Your task to perform on an android device: turn off smart reply in the gmail app Image 0: 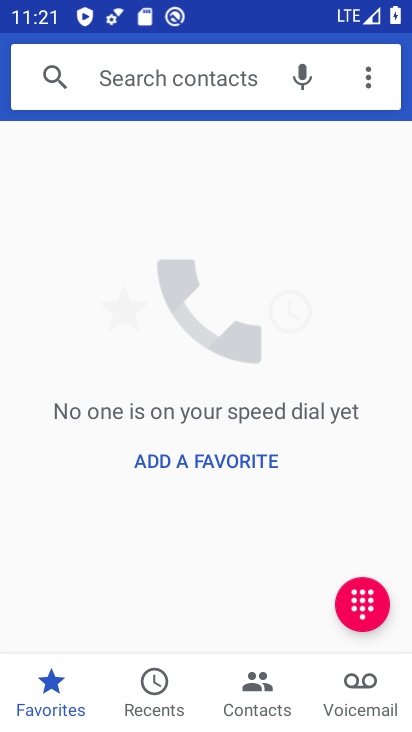
Step 0: press home button
Your task to perform on an android device: turn off smart reply in the gmail app Image 1: 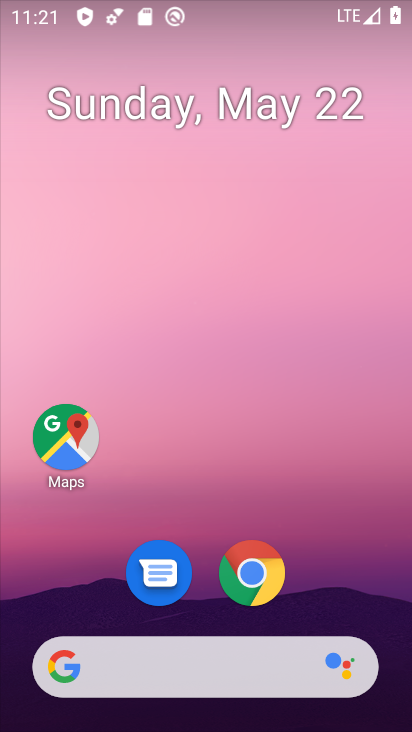
Step 1: drag from (195, 614) to (172, 6)
Your task to perform on an android device: turn off smart reply in the gmail app Image 2: 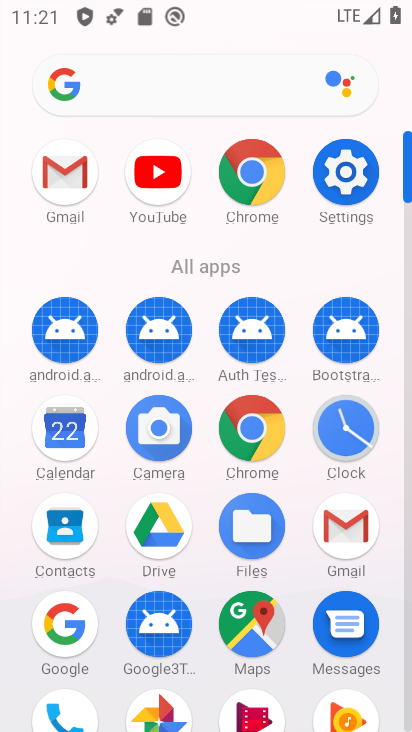
Step 2: click (70, 189)
Your task to perform on an android device: turn off smart reply in the gmail app Image 3: 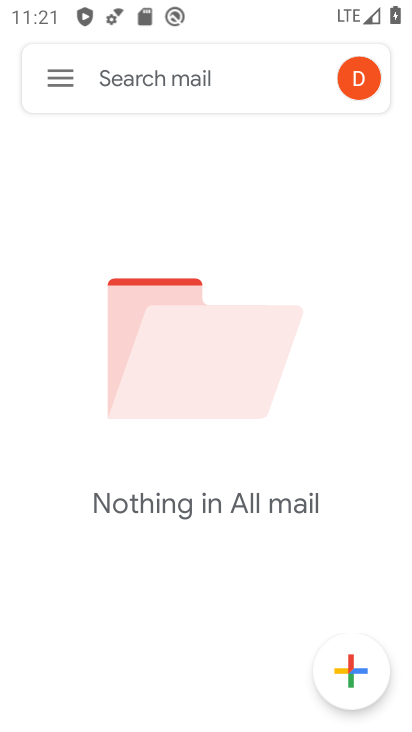
Step 3: click (55, 69)
Your task to perform on an android device: turn off smart reply in the gmail app Image 4: 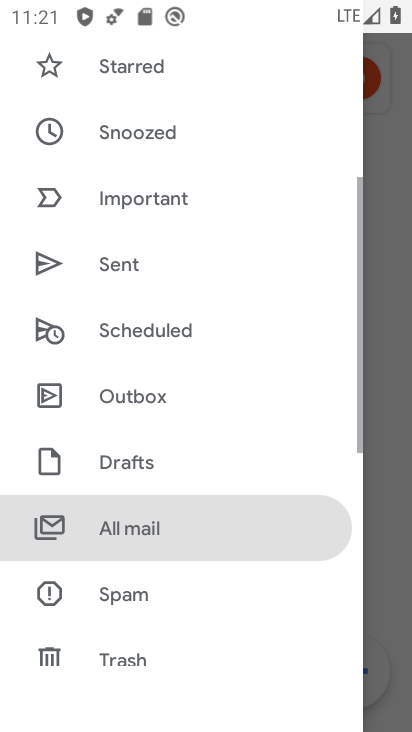
Step 4: drag from (99, 596) to (164, 54)
Your task to perform on an android device: turn off smart reply in the gmail app Image 5: 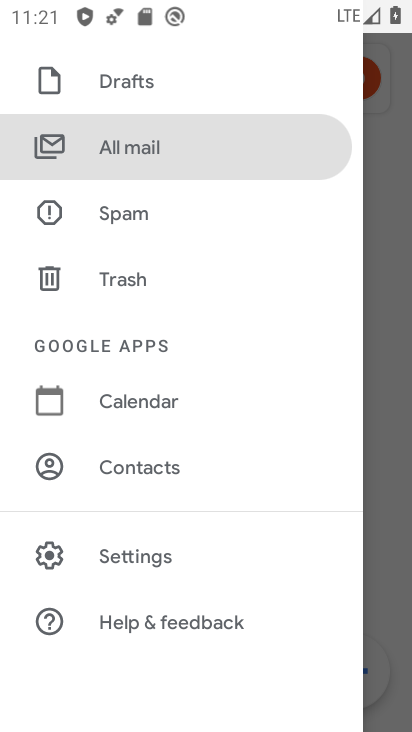
Step 5: click (141, 567)
Your task to perform on an android device: turn off smart reply in the gmail app Image 6: 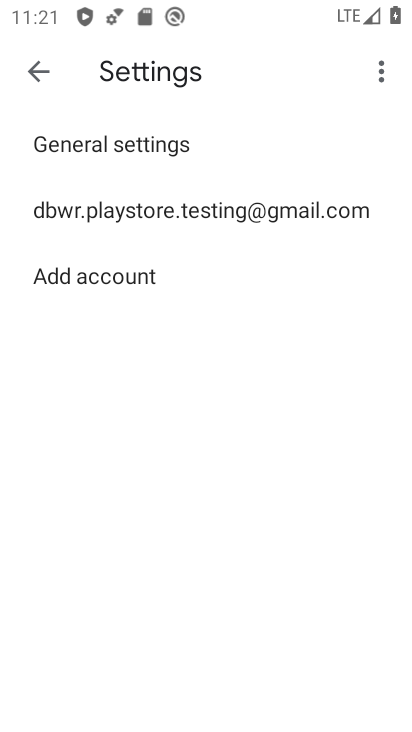
Step 6: click (137, 210)
Your task to perform on an android device: turn off smart reply in the gmail app Image 7: 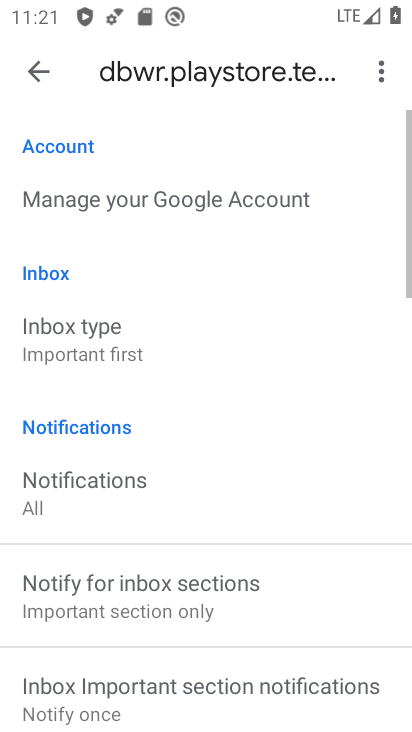
Step 7: drag from (200, 632) to (229, 106)
Your task to perform on an android device: turn off smart reply in the gmail app Image 8: 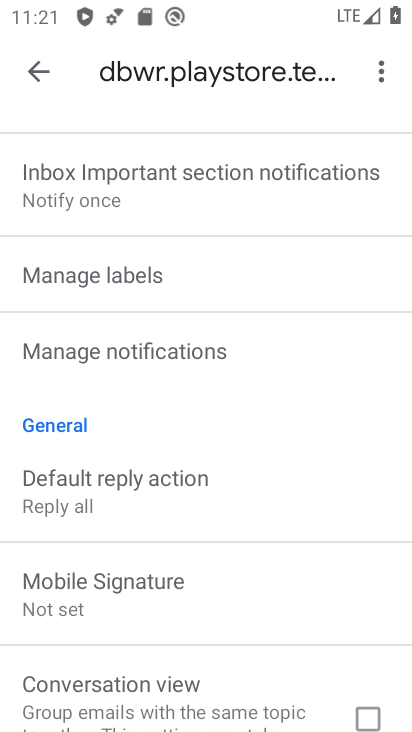
Step 8: drag from (165, 546) to (172, 166)
Your task to perform on an android device: turn off smart reply in the gmail app Image 9: 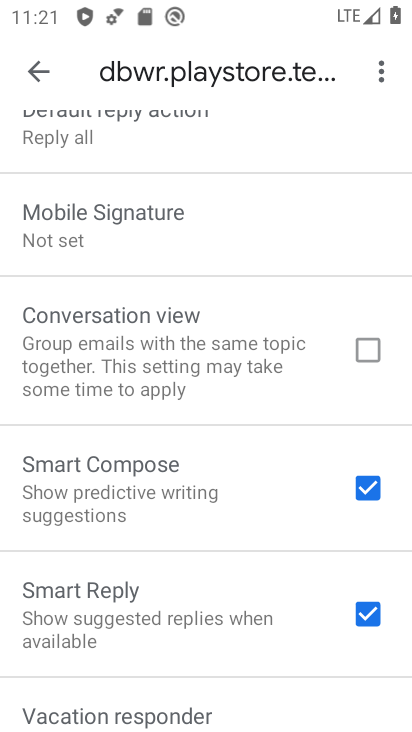
Step 9: click (372, 615)
Your task to perform on an android device: turn off smart reply in the gmail app Image 10: 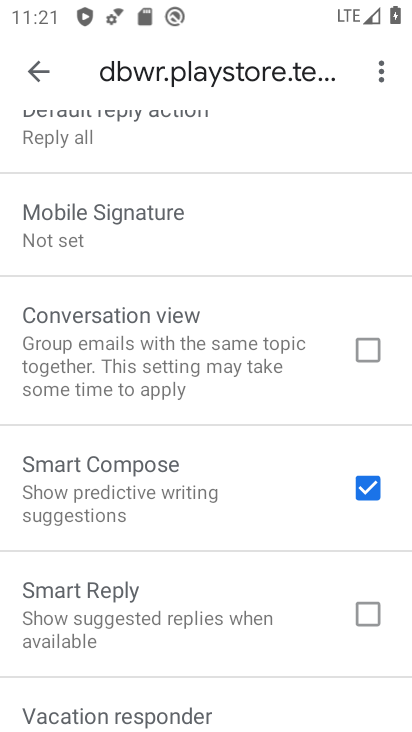
Step 10: task complete